Your task to perform on an android device: Open Maps and search for coffee Image 0: 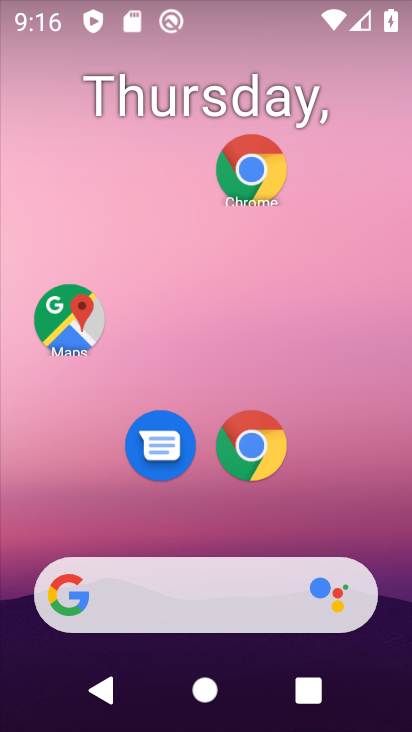
Step 0: click (76, 322)
Your task to perform on an android device: Open Maps and search for coffee Image 1: 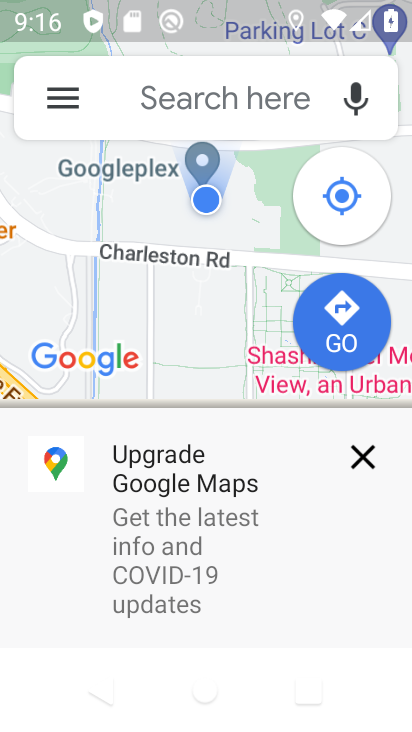
Step 1: click (372, 457)
Your task to perform on an android device: Open Maps and search for coffee Image 2: 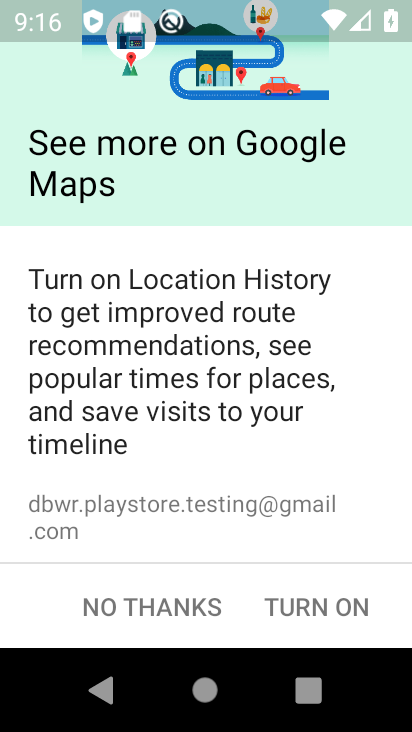
Step 2: click (328, 589)
Your task to perform on an android device: Open Maps and search for coffee Image 3: 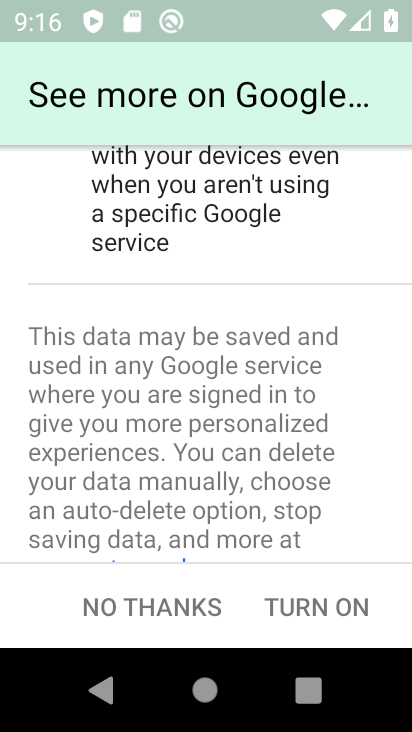
Step 3: click (326, 589)
Your task to perform on an android device: Open Maps and search for coffee Image 4: 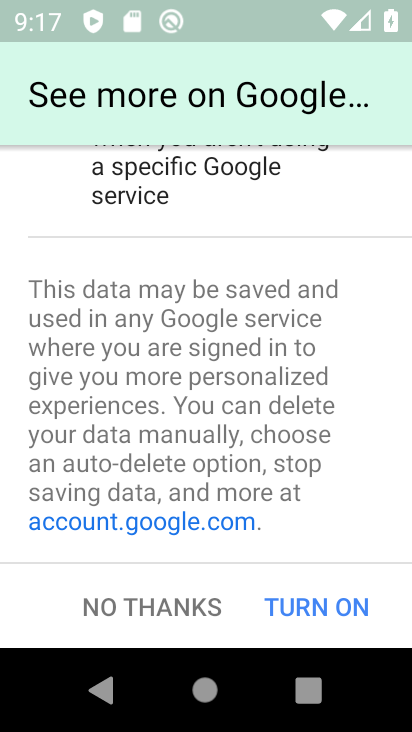
Step 4: click (294, 611)
Your task to perform on an android device: Open Maps and search for coffee Image 5: 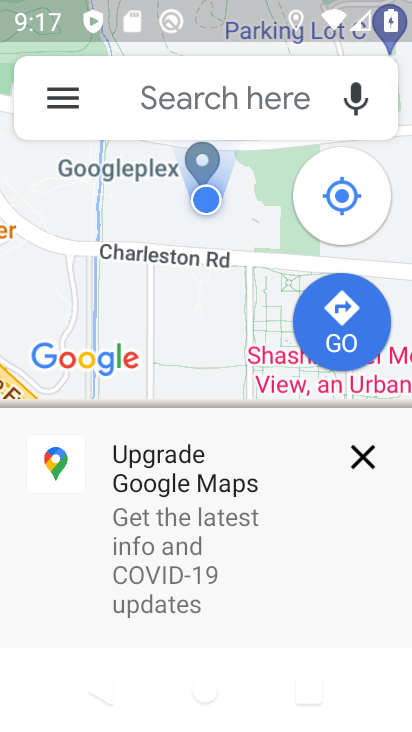
Step 5: click (187, 113)
Your task to perform on an android device: Open Maps and search for coffee Image 6: 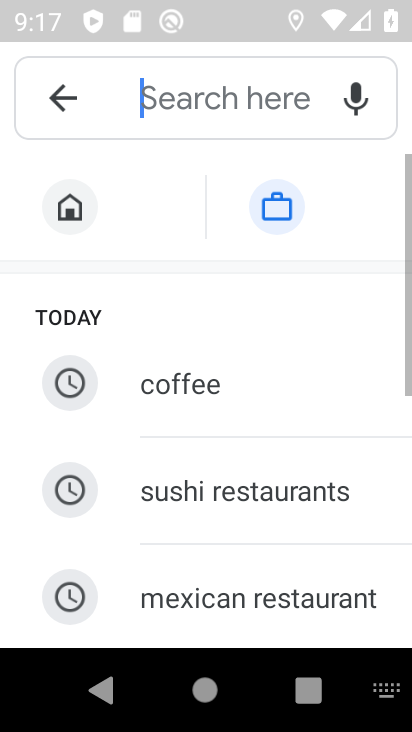
Step 6: click (181, 394)
Your task to perform on an android device: Open Maps and search for coffee Image 7: 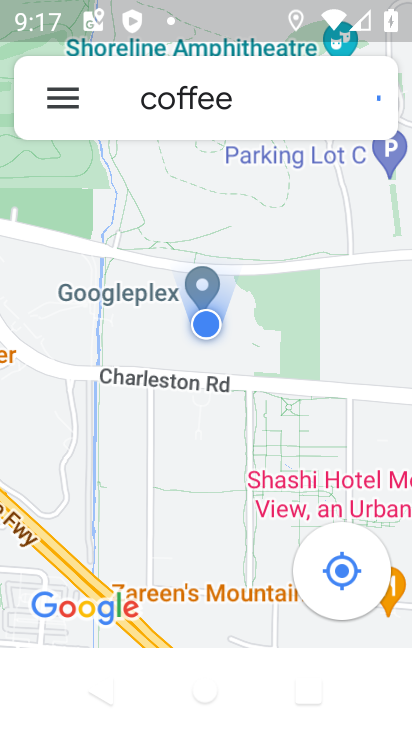
Step 7: task complete